Your task to perform on an android device: find photos in the google photos app Image 0: 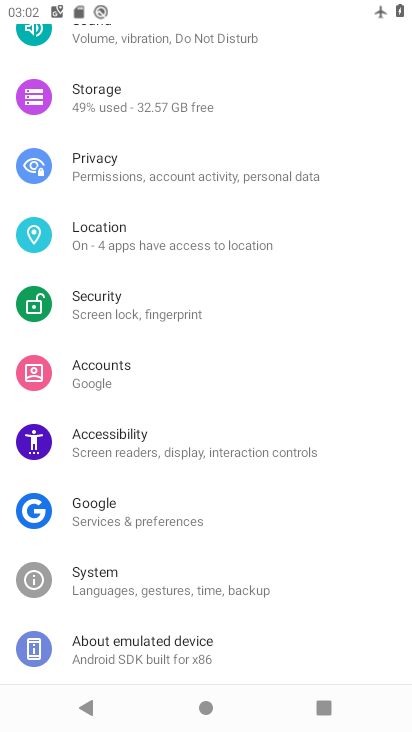
Step 0: drag from (112, 694) to (342, 645)
Your task to perform on an android device: find photos in the google photos app Image 1: 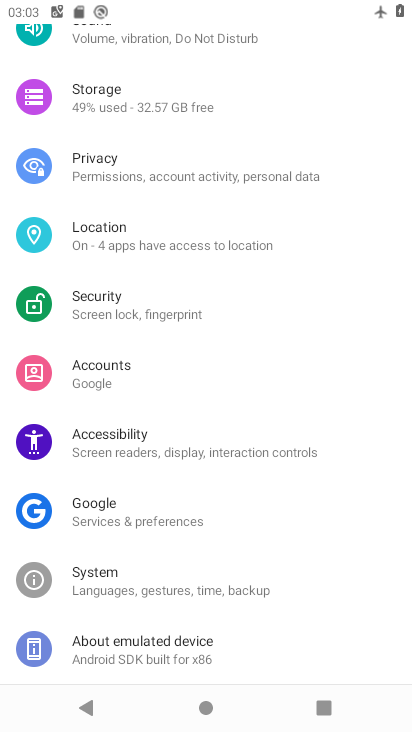
Step 1: press back button
Your task to perform on an android device: find photos in the google photos app Image 2: 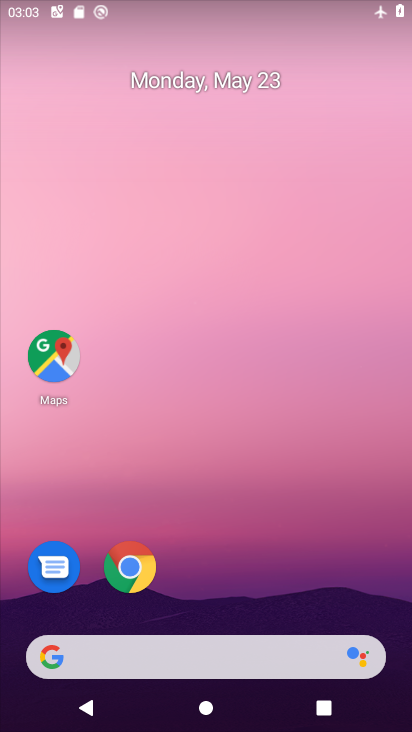
Step 2: press home button
Your task to perform on an android device: find photos in the google photos app Image 3: 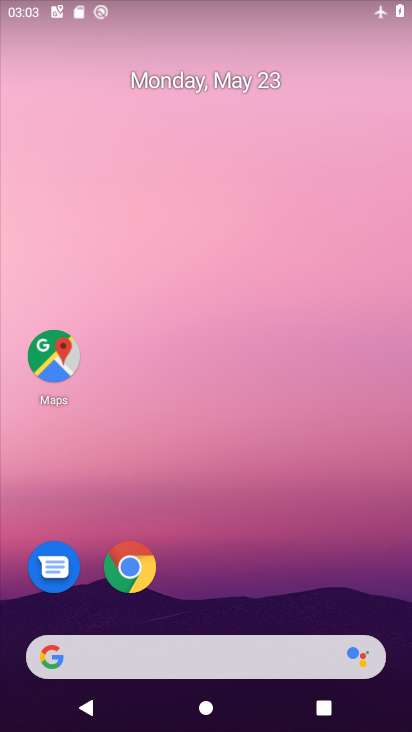
Step 3: drag from (215, 557) to (217, 186)
Your task to perform on an android device: find photos in the google photos app Image 4: 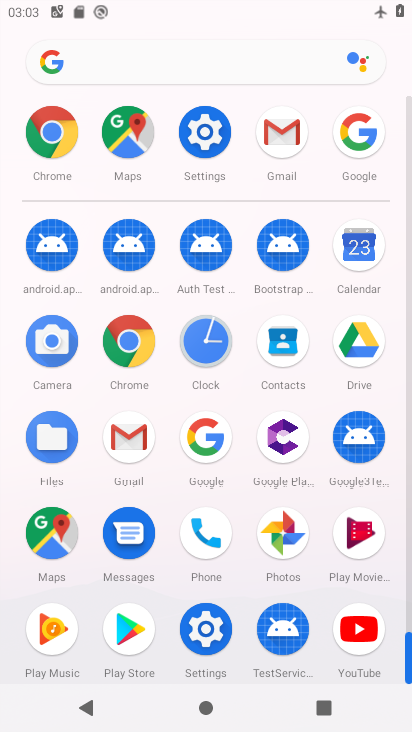
Step 4: click (300, 543)
Your task to perform on an android device: find photos in the google photos app Image 5: 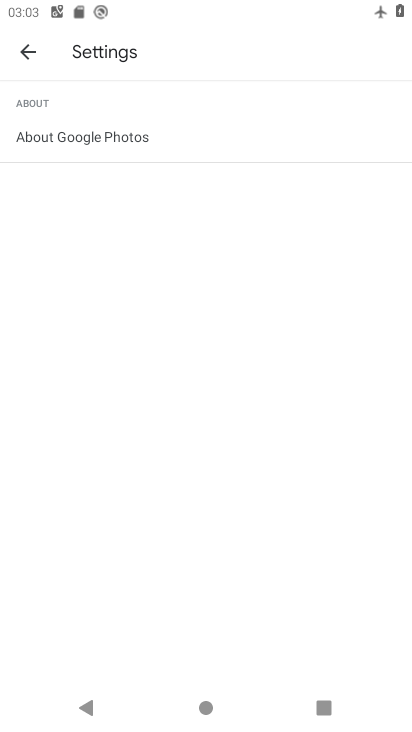
Step 5: click (34, 62)
Your task to perform on an android device: find photos in the google photos app Image 6: 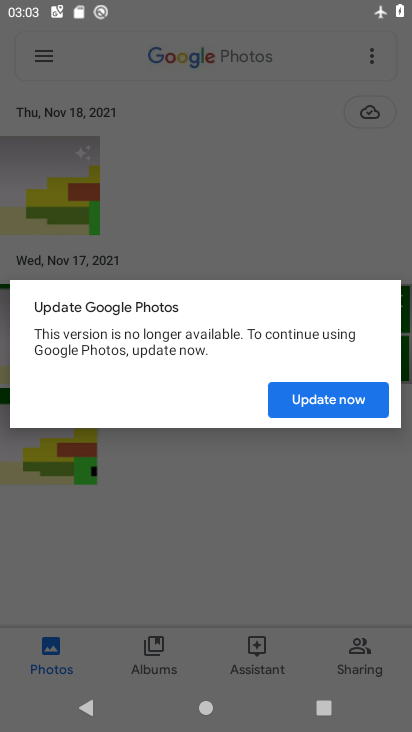
Step 6: click (316, 395)
Your task to perform on an android device: find photos in the google photos app Image 7: 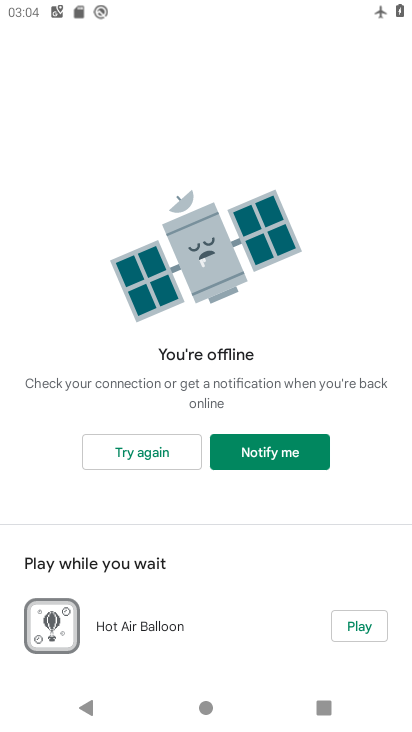
Step 7: task complete